Your task to perform on an android device: Set the phone to "Do not disturb". Image 0: 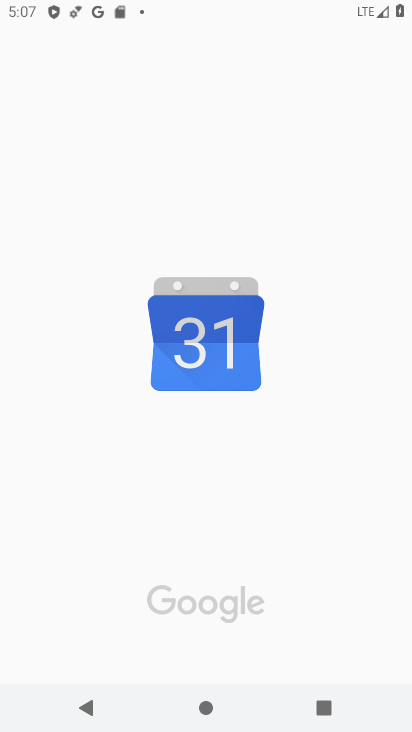
Step 0: drag from (221, 601) to (221, 333)
Your task to perform on an android device: Set the phone to "Do not disturb". Image 1: 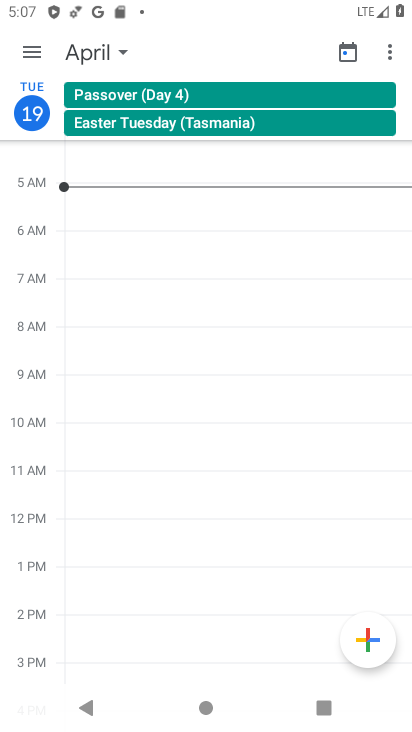
Step 1: press home button
Your task to perform on an android device: Set the phone to "Do not disturb". Image 2: 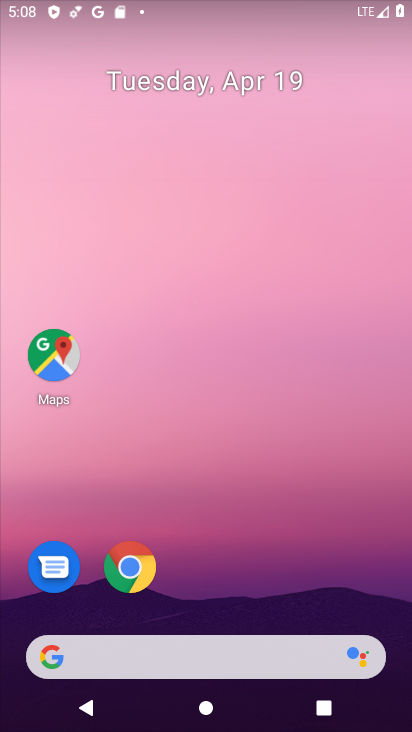
Step 2: click (321, 19)
Your task to perform on an android device: Set the phone to "Do not disturb". Image 3: 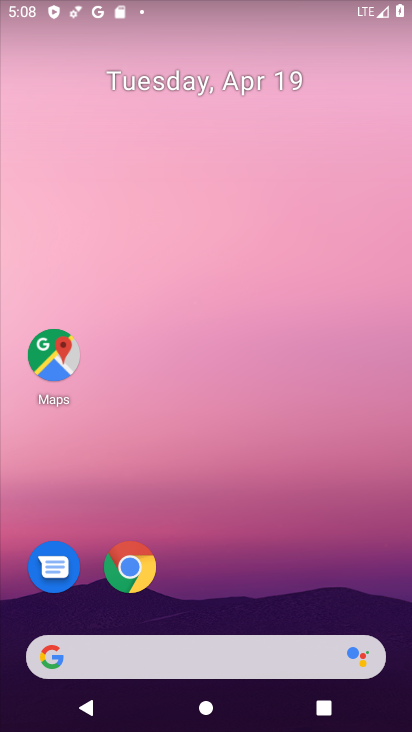
Step 3: drag from (324, 613) to (305, 155)
Your task to perform on an android device: Set the phone to "Do not disturb". Image 4: 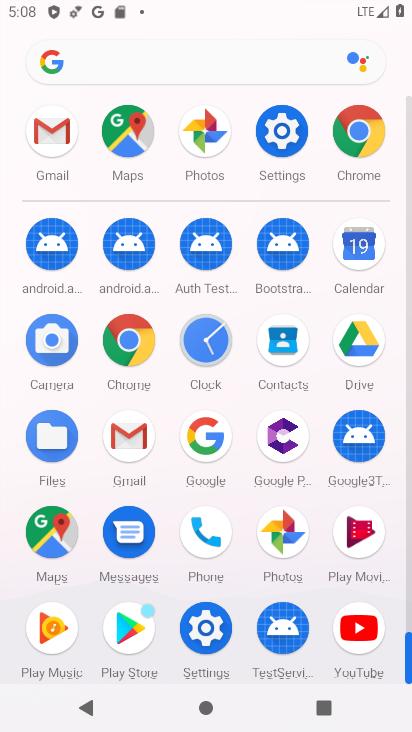
Step 4: click (214, 638)
Your task to perform on an android device: Set the phone to "Do not disturb". Image 5: 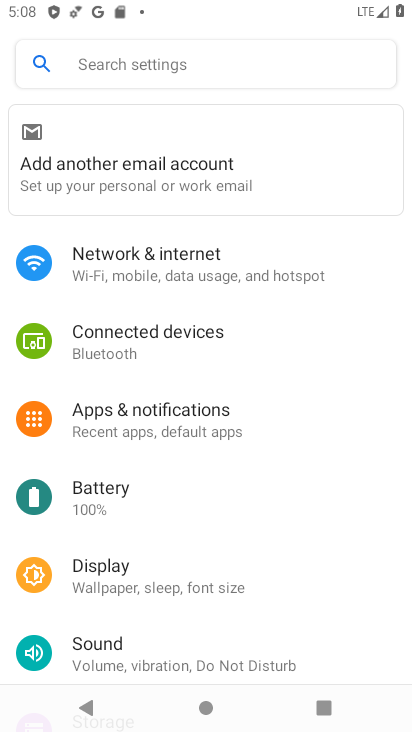
Step 5: click (189, 654)
Your task to perform on an android device: Set the phone to "Do not disturb". Image 6: 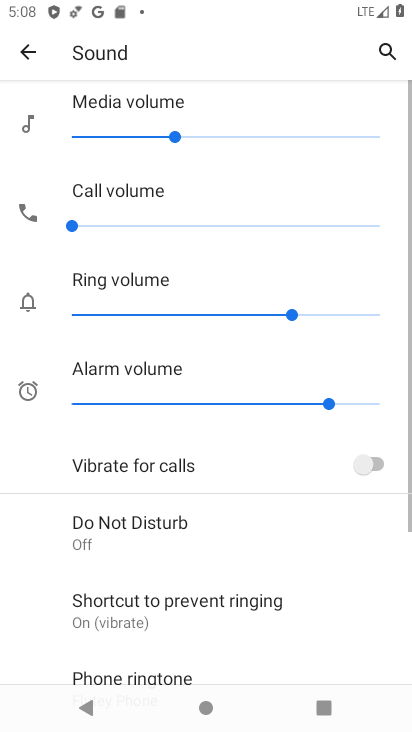
Step 6: drag from (192, 653) to (209, 411)
Your task to perform on an android device: Set the phone to "Do not disturb". Image 7: 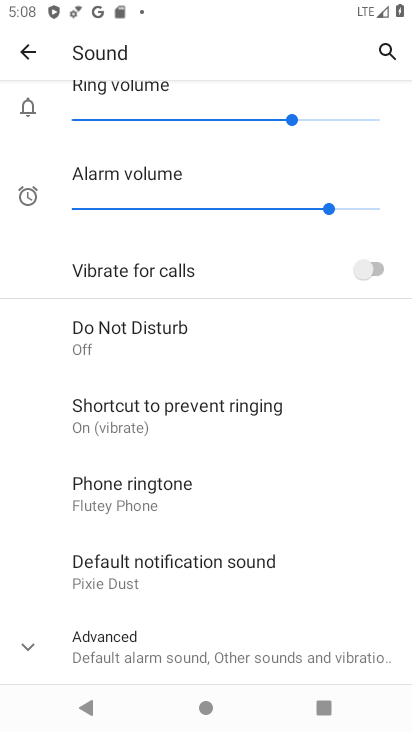
Step 7: click (158, 347)
Your task to perform on an android device: Set the phone to "Do not disturb". Image 8: 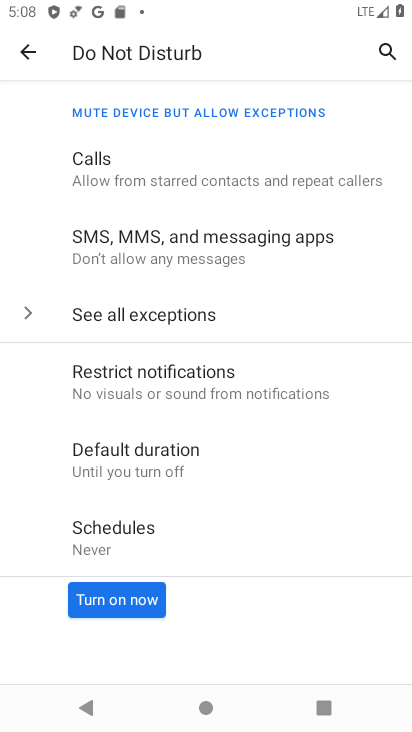
Step 8: click (131, 594)
Your task to perform on an android device: Set the phone to "Do not disturb". Image 9: 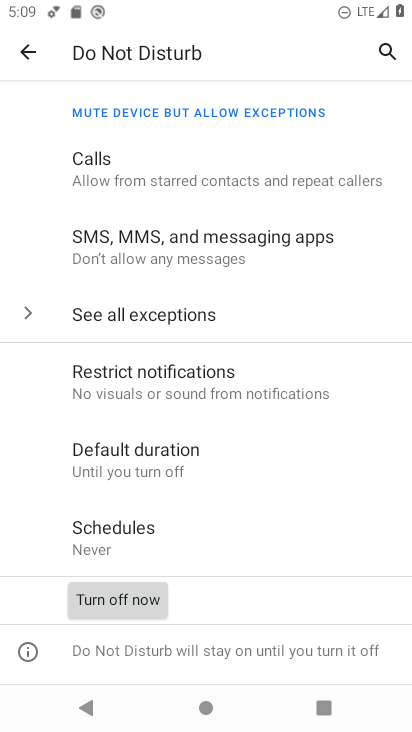
Step 9: task complete